Your task to perform on an android device: Search for sushi restaurants on Maps Image 0: 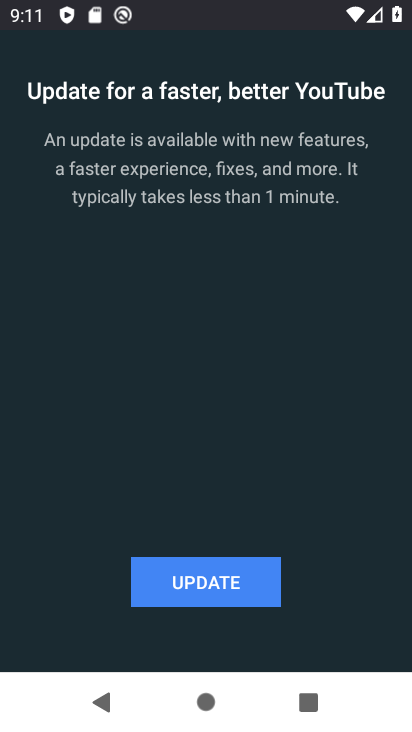
Step 0: press home button
Your task to perform on an android device: Search for sushi restaurants on Maps Image 1: 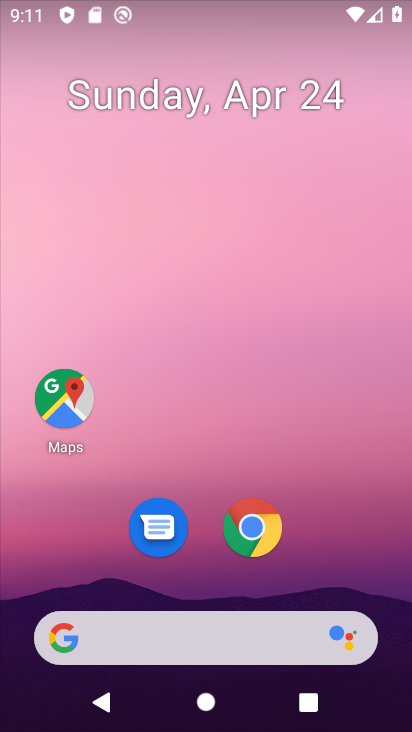
Step 1: click (58, 411)
Your task to perform on an android device: Search for sushi restaurants on Maps Image 2: 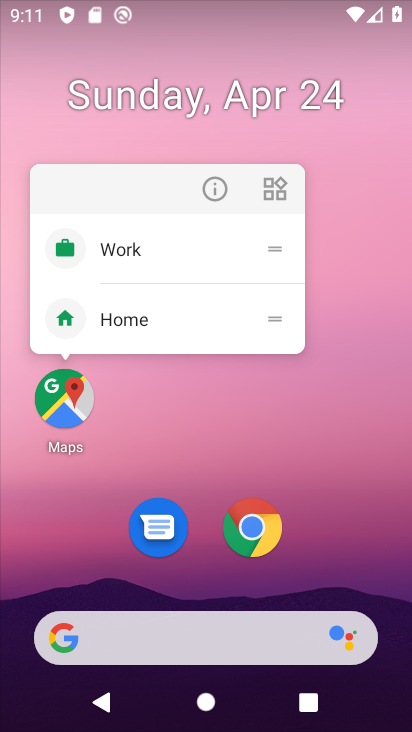
Step 2: click (56, 391)
Your task to perform on an android device: Search for sushi restaurants on Maps Image 3: 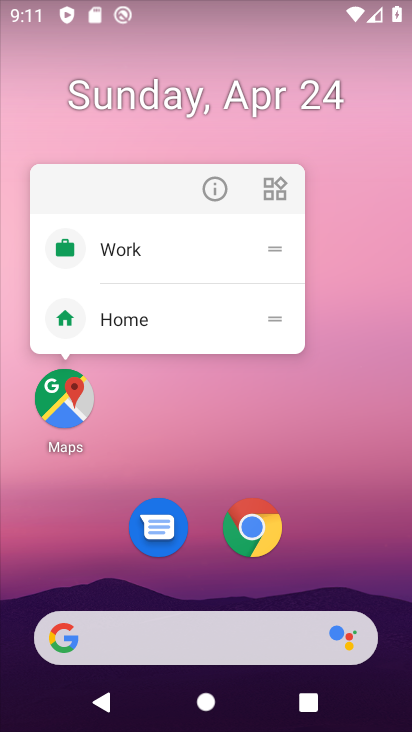
Step 3: click (59, 398)
Your task to perform on an android device: Search for sushi restaurants on Maps Image 4: 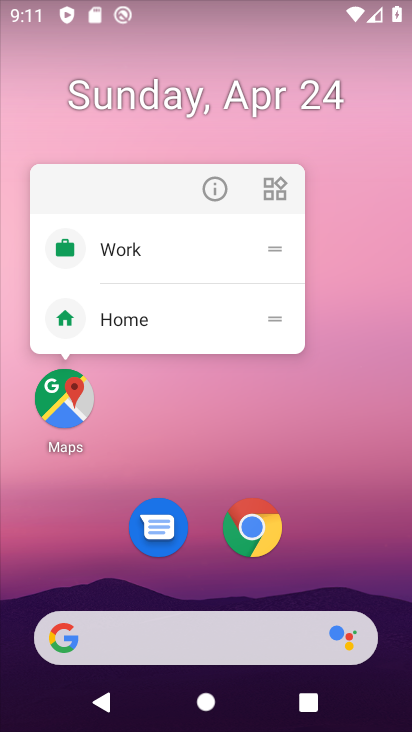
Step 4: click (63, 401)
Your task to perform on an android device: Search for sushi restaurants on Maps Image 5: 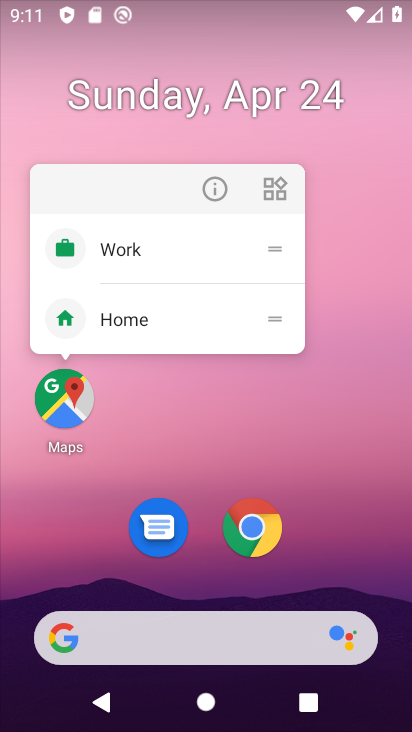
Step 5: click (71, 399)
Your task to perform on an android device: Search for sushi restaurants on Maps Image 6: 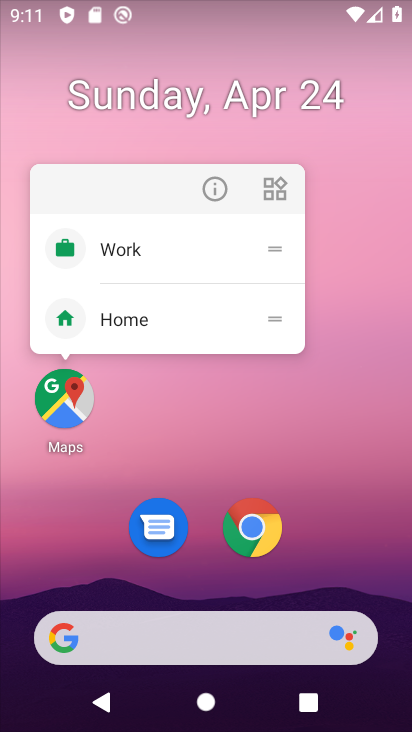
Step 6: click (63, 408)
Your task to perform on an android device: Search for sushi restaurants on Maps Image 7: 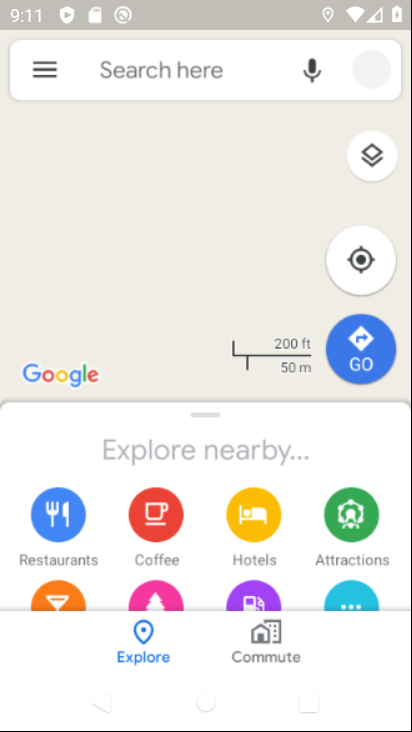
Step 7: click (164, 65)
Your task to perform on an android device: Search for sushi restaurants on Maps Image 8: 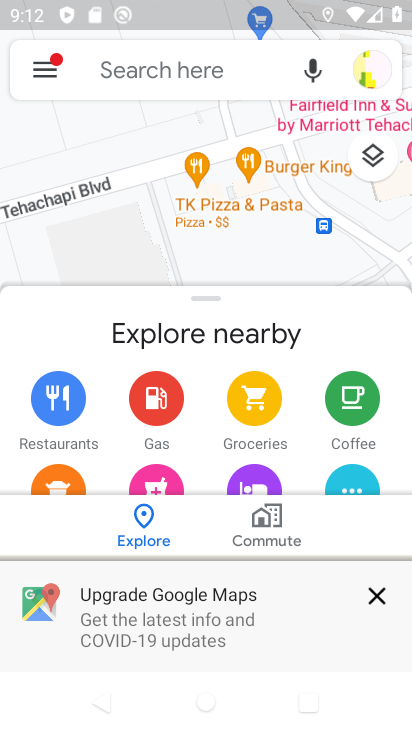
Step 8: click (151, 71)
Your task to perform on an android device: Search for sushi restaurants on Maps Image 9: 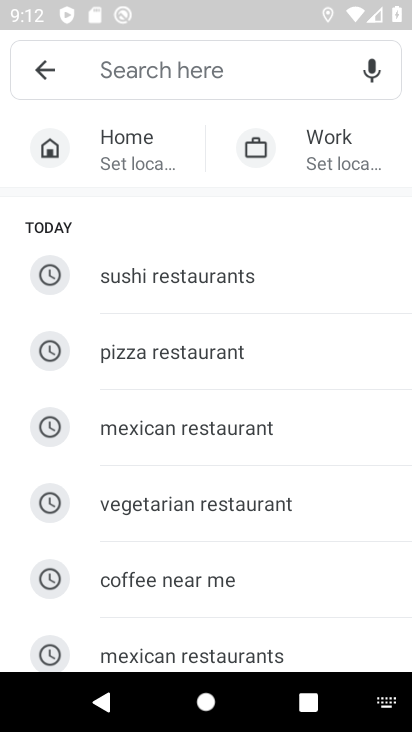
Step 9: click (193, 269)
Your task to perform on an android device: Search for sushi restaurants on Maps Image 10: 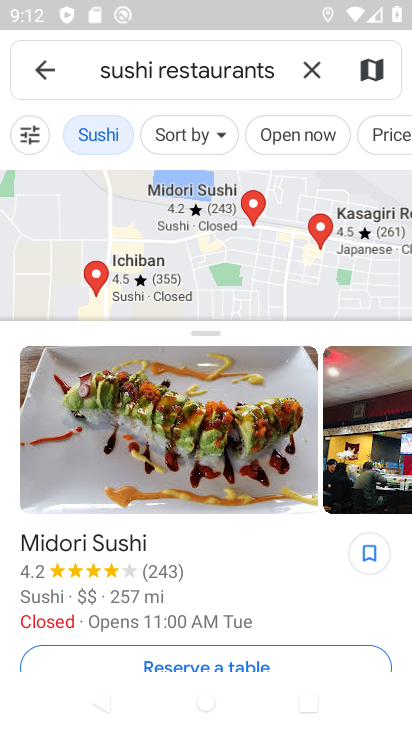
Step 10: task complete